Your task to perform on an android device: search for starred emails in the gmail app Image 0: 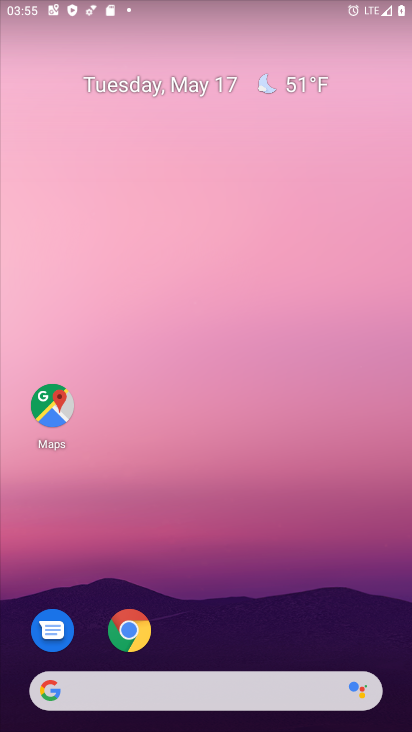
Step 0: drag from (212, 588) to (272, 18)
Your task to perform on an android device: search for starred emails in the gmail app Image 1: 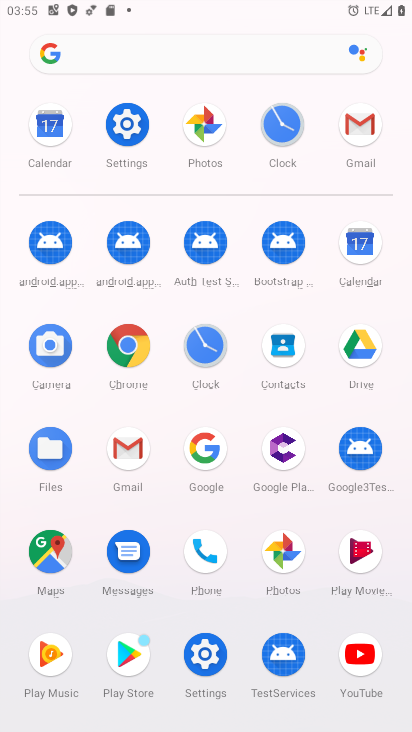
Step 1: click (378, 132)
Your task to perform on an android device: search for starred emails in the gmail app Image 2: 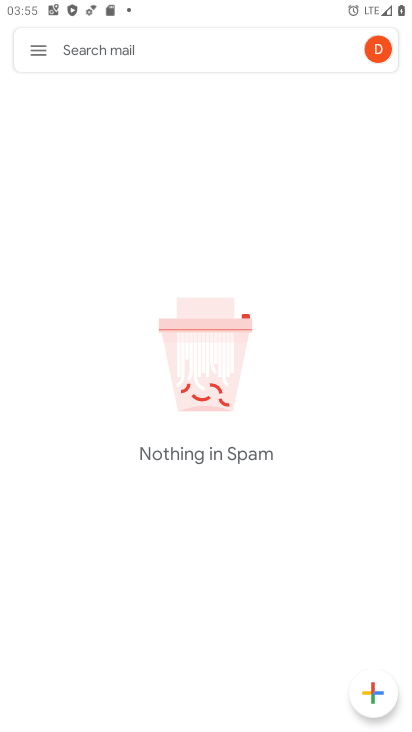
Step 2: click (33, 51)
Your task to perform on an android device: search for starred emails in the gmail app Image 3: 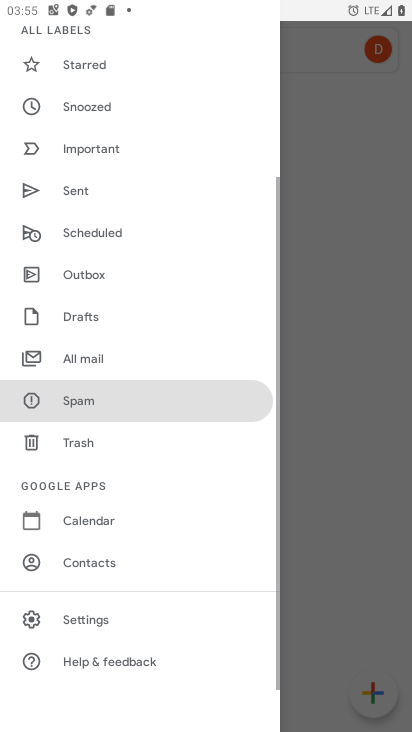
Step 3: click (109, 66)
Your task to perform on an android device: search for starred emails in the gmail app Image 4: 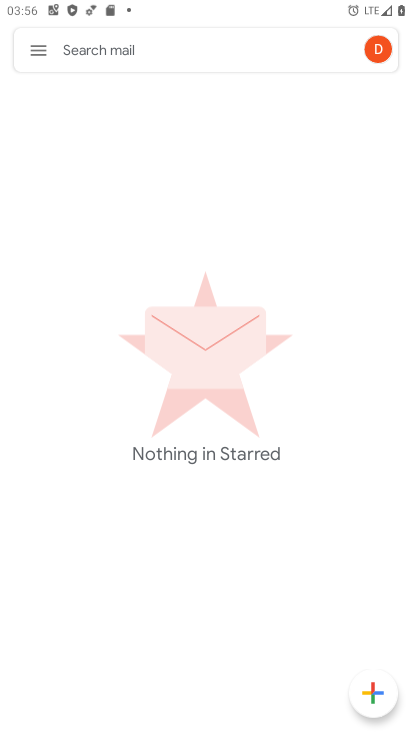
Step 4: task complete